Your task to perform on an android device: Open the phone app and click the voicemail tab. Image 0: 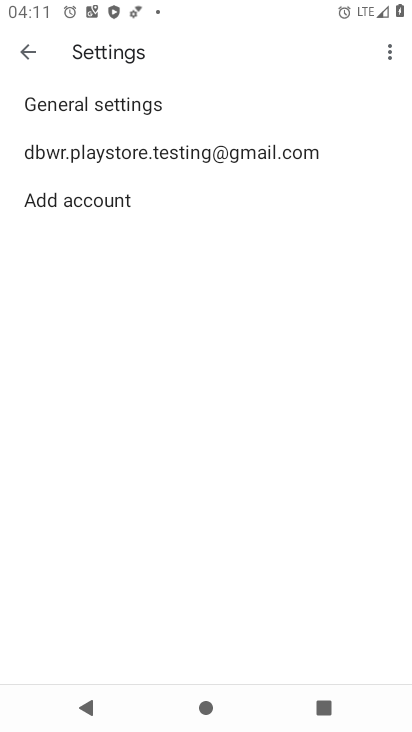
Step 0: press home button
Your task to perform on an android device: Open the phone app and click the voicemail tab. Image 1: 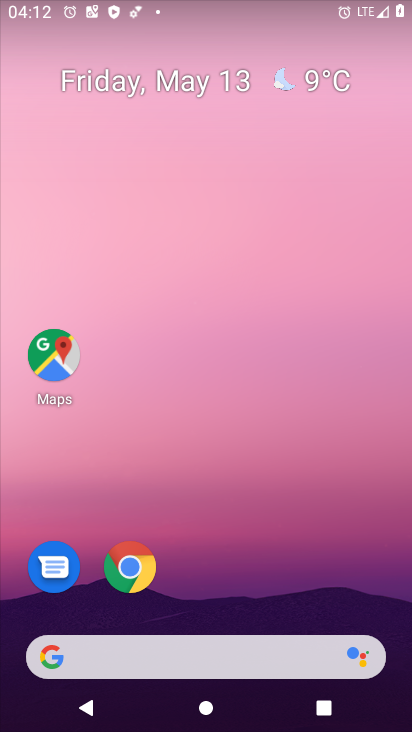
Step 1: drag from (297, 588) to (298, 8)
Your task to perform on an android device: Open the phone app and click the voicemail tab. Image 2: 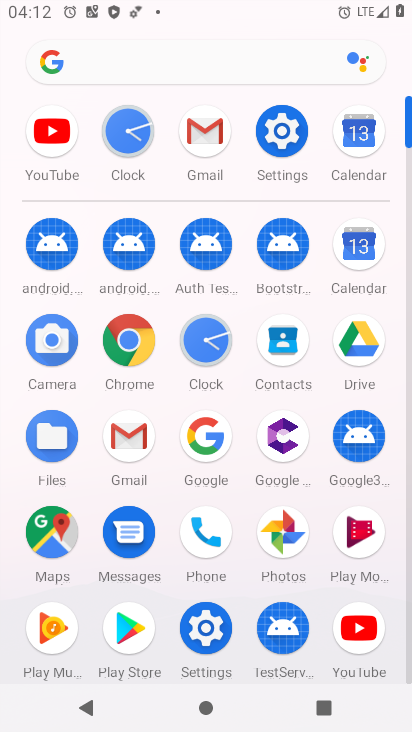
Step 2: click (207, 529)
Your task to perform on an android device: Open the phone app and click the voicemail tab. Image 3: 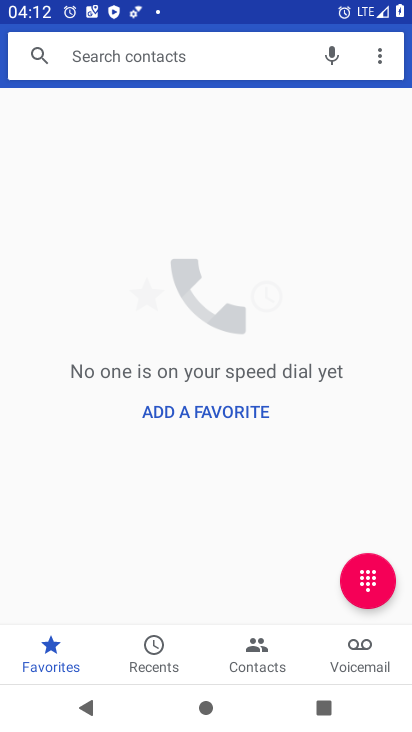
Step 3: click (346, 659)
Your task to perform on an android device: Open the phone app and click the voicemail tab. Image 4: 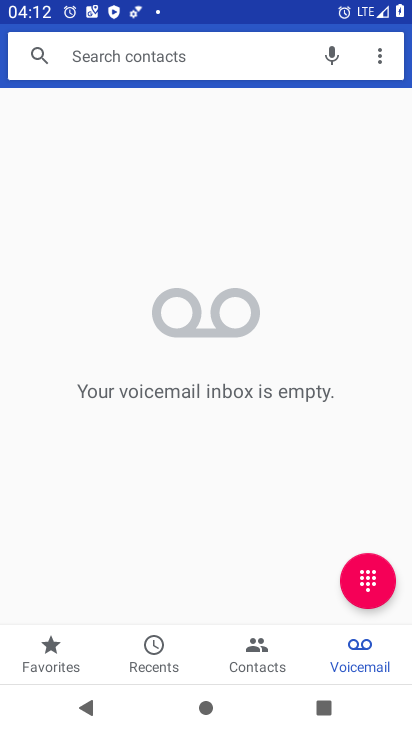
Step 4: task complete